Your task to perform on an android device: turn on data saver in the chrome app Image 0: 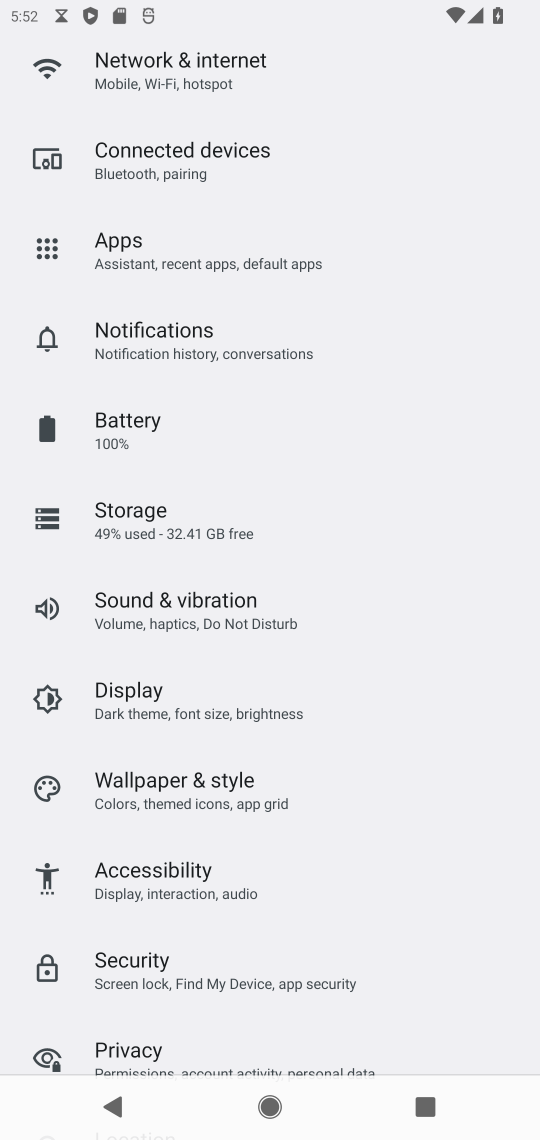
Step 0: press home button
Your task to perform on an android device: turn on data saver in the chrome app Image 1: 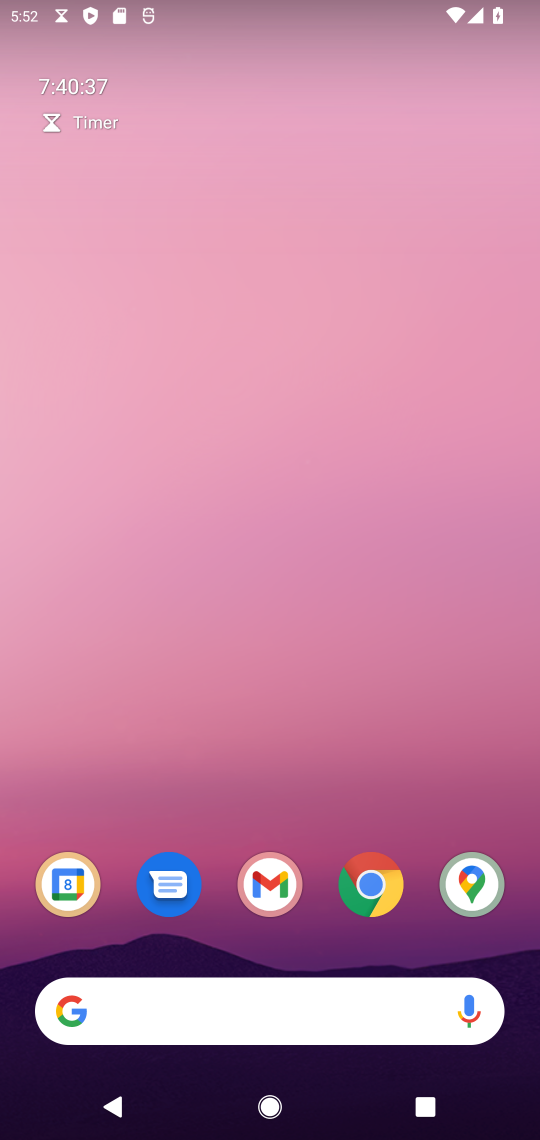
Step 1: click (378, 874)
Your task to perform on an android device: turn on data saver in the chrome app Image 2: 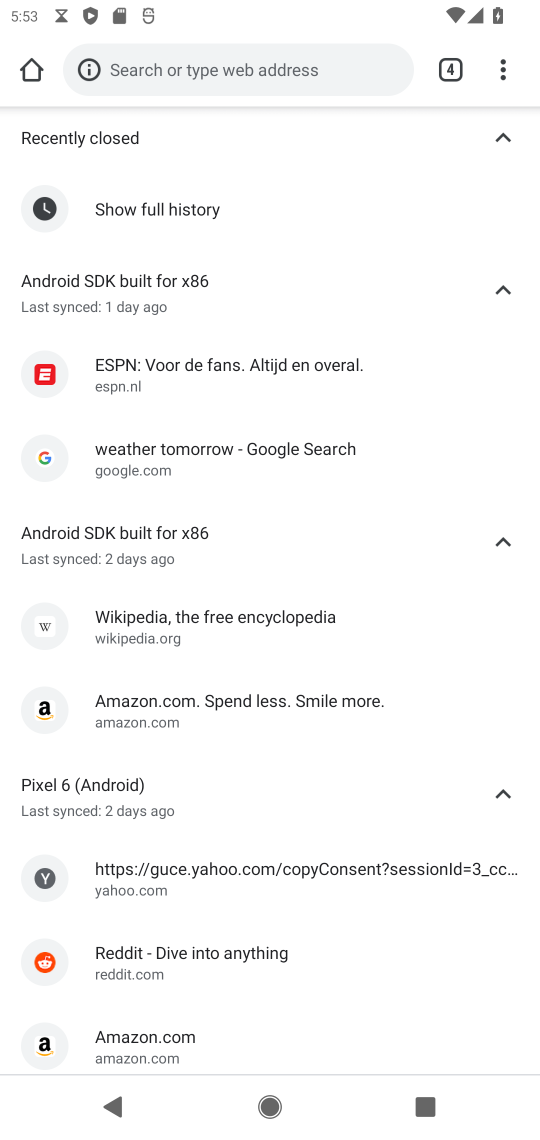
Step 2: click (518, 87)
Your task to perform on an android device: turn on data saver in the chrome app Image 3: 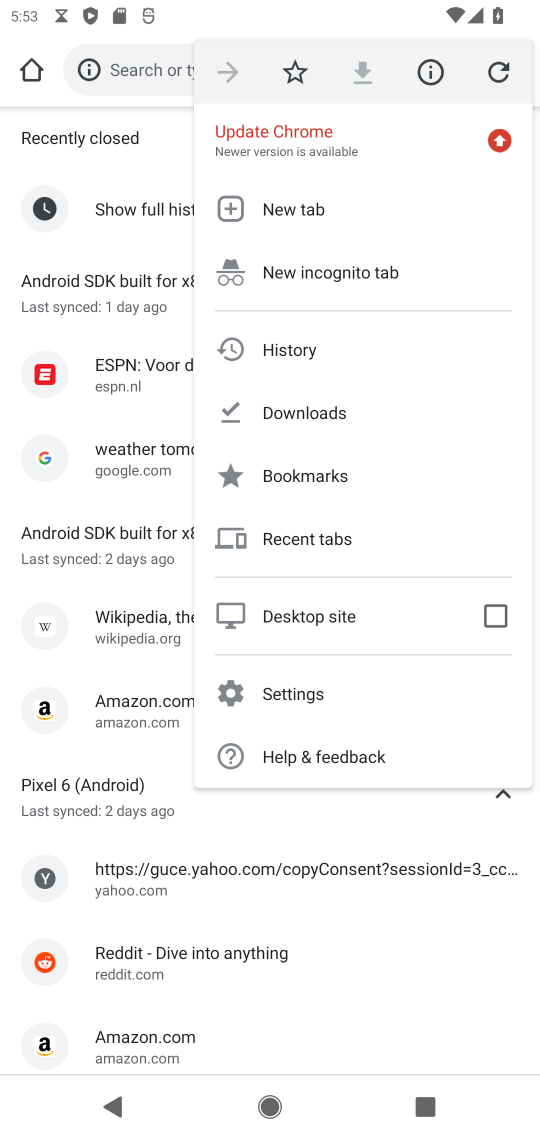
Step 3: click (332, 701)
Your task to perform on an android device: turn on data saver in the chrome app Image 4: 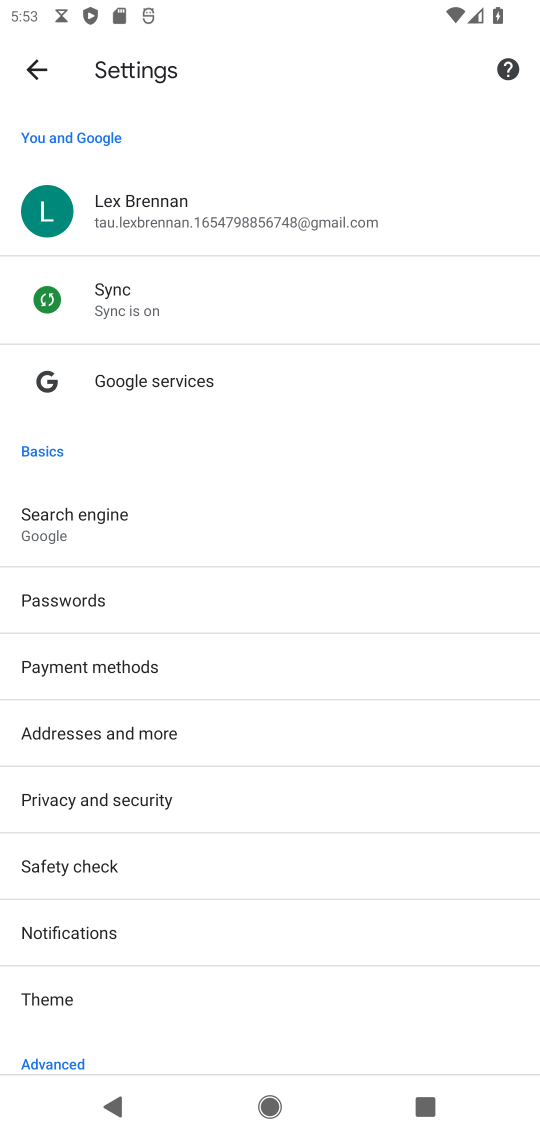
Step 4: drag from (250, 1019) to (210, 272)
Your task to perform on an android device: turn on data saver in the chrome app Image 5: 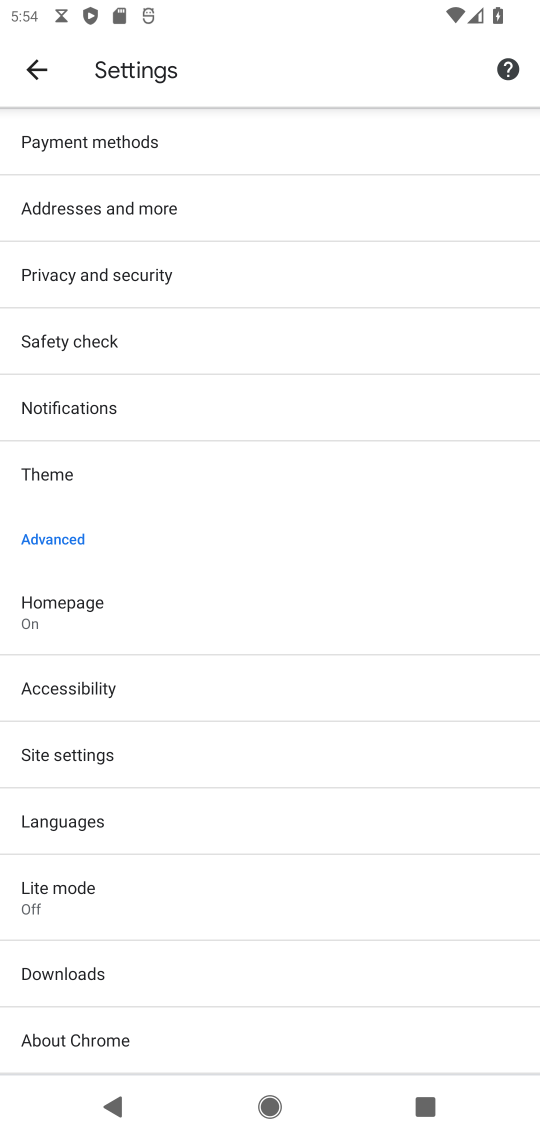
Step 5: click (188, 908)
Your task to perform on an android device: turn on data saver in the chrome app Image 6: 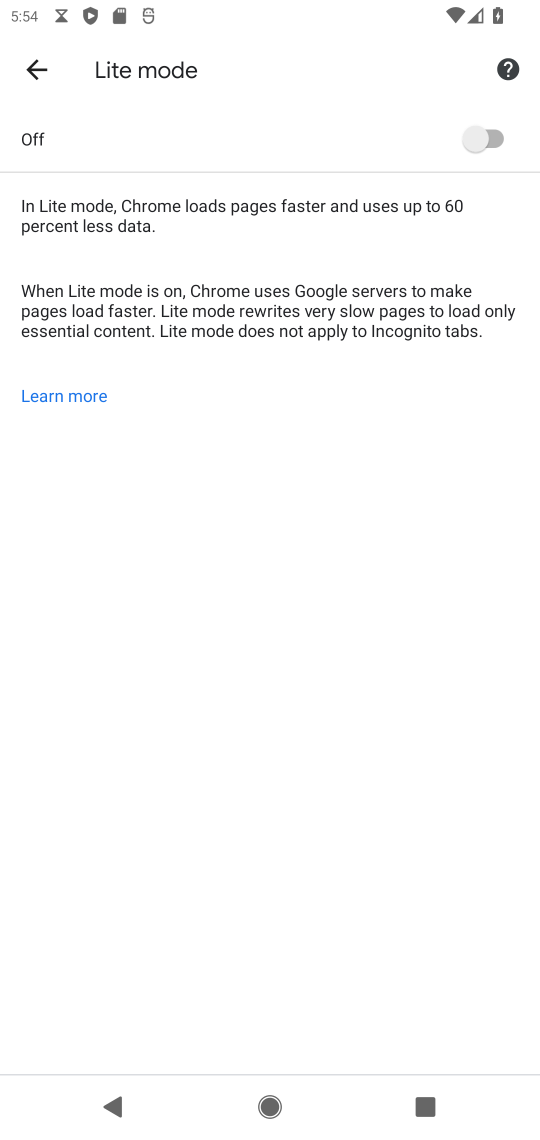
Step 6: click (481, 138)
Your task to perform on an android device: turn on data saver in the chrome app Image 7: 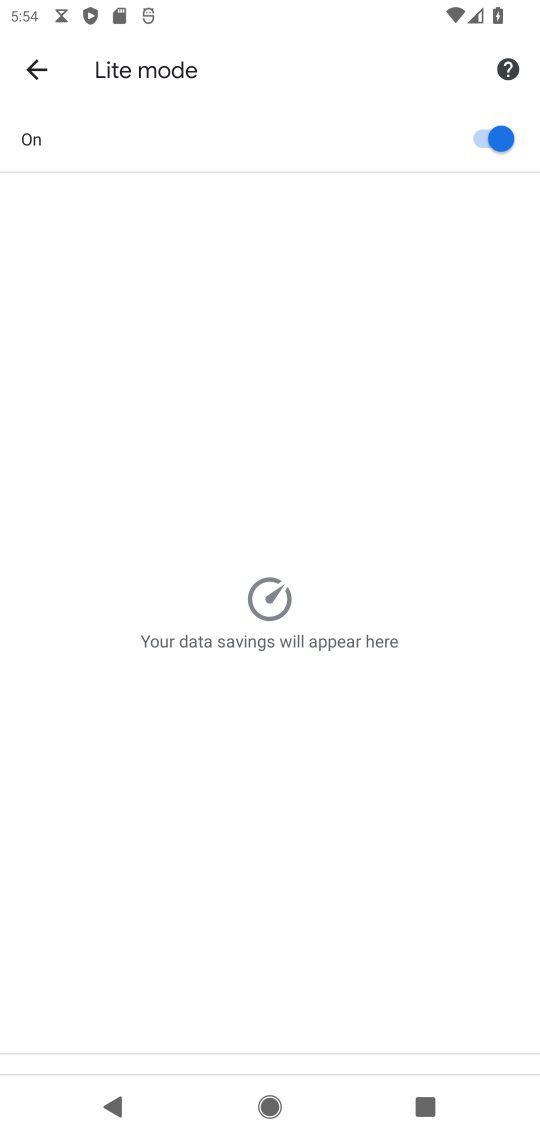
Step 7: task complete